Your task to perform on an android device: stop showing notifications on the lock screen Image 0: 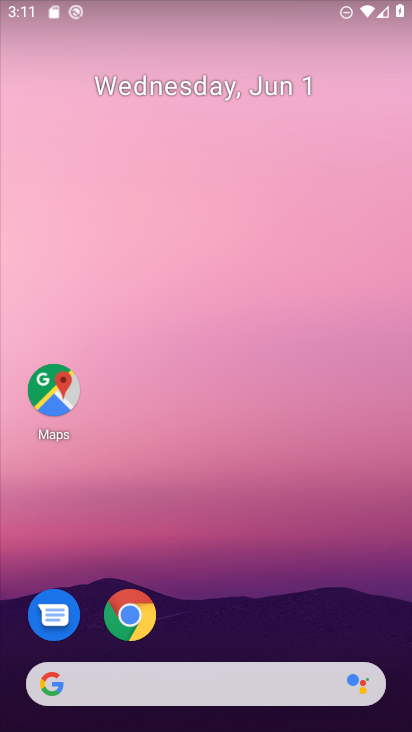
Step 0: press home button
Your task to perform on an android device: stop showing notifications on the lock screen Image 1: 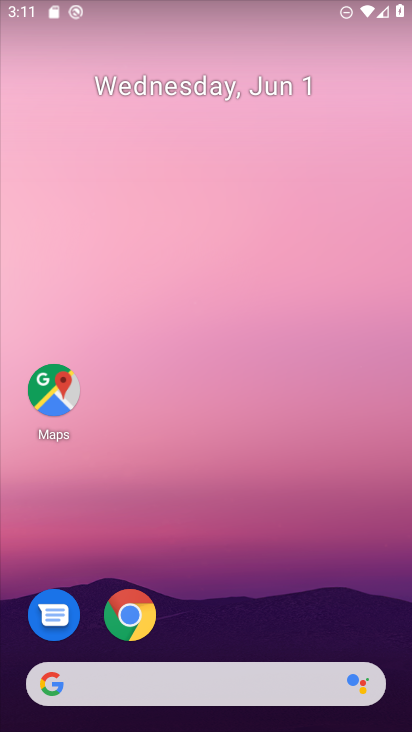
Step 1: drag from (206, 643) to (220, 88)
Your task to perform on an android device: stop showing notifications on the lock screen Image 2: 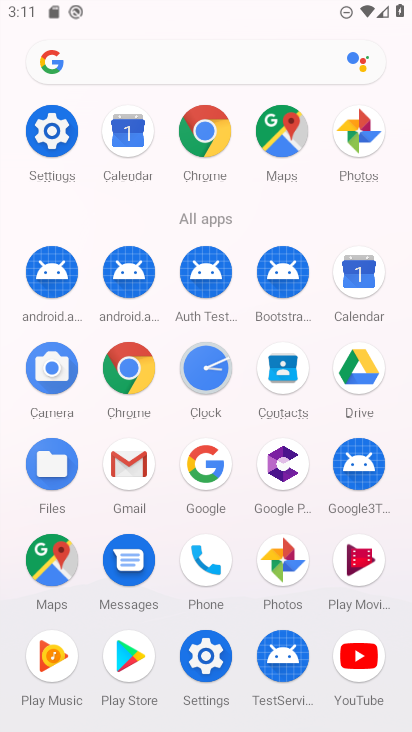
Step 2: click (48, 121)
Your task to perform on an android device: stop showing notifications on the lock screen Image 3: 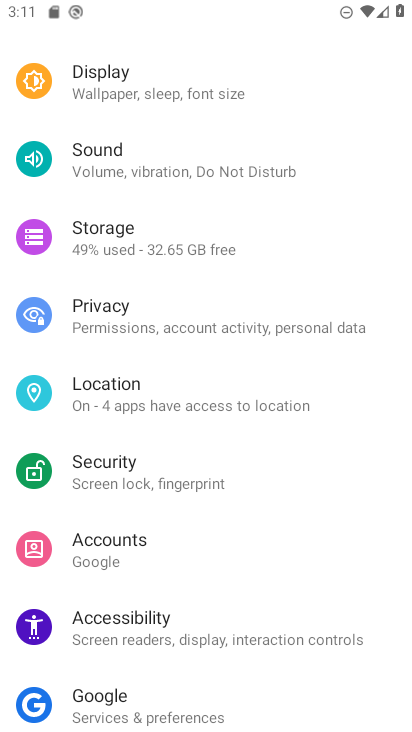
Step 3: drag from (172, 134) to (190, 549)
Your task to perform on an android device: stop showing notifications on the lock screen Image 4: 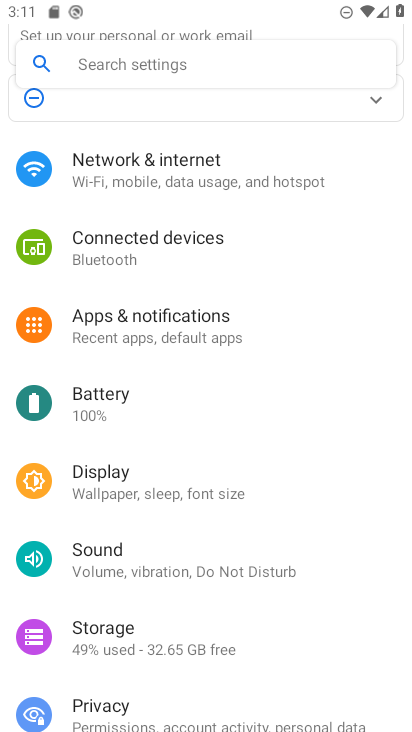
Step 4: click (246, 315)
Your task to perform on an android device: stop showing notifications on the lock screen Image 5: 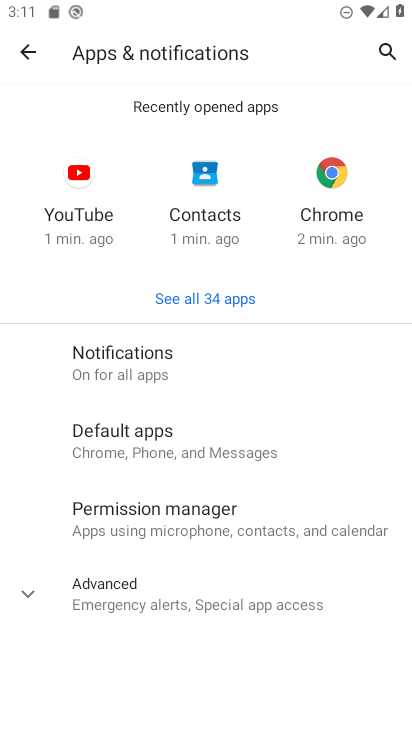
Step 5: click (181, 364)
Your task to perform on an android device: stop showing notifications on the lock screen Image 6: 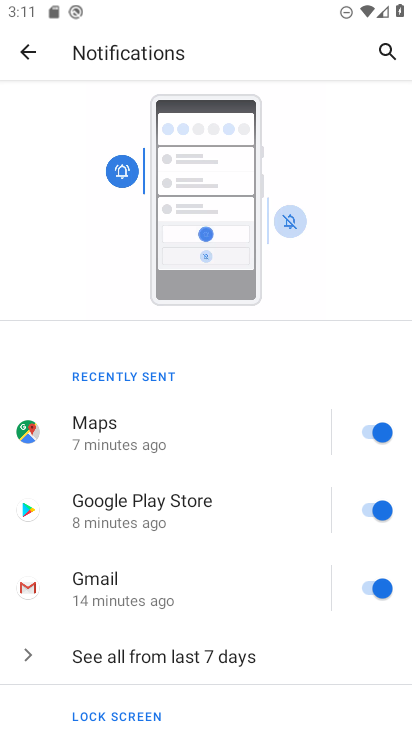
Step 6: drag from (246, 626) to (279, 201)
Your task to perform on an android device: stop showing notifications on the lock screen Image 7: 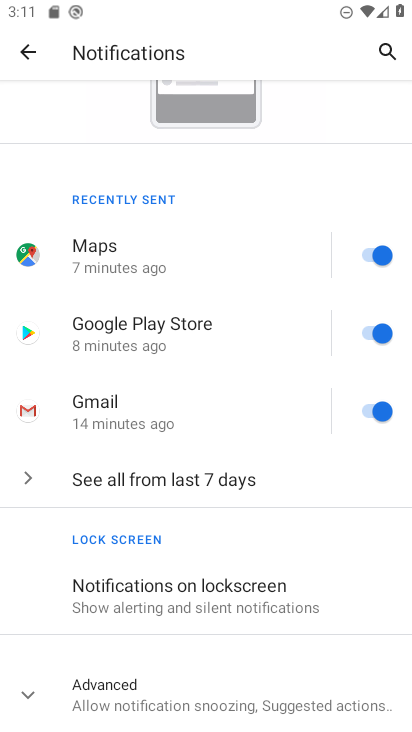
Step 7: click (31, 684)
Your task to perform on an android device: stop showing notifications on the lock screen Image 8: 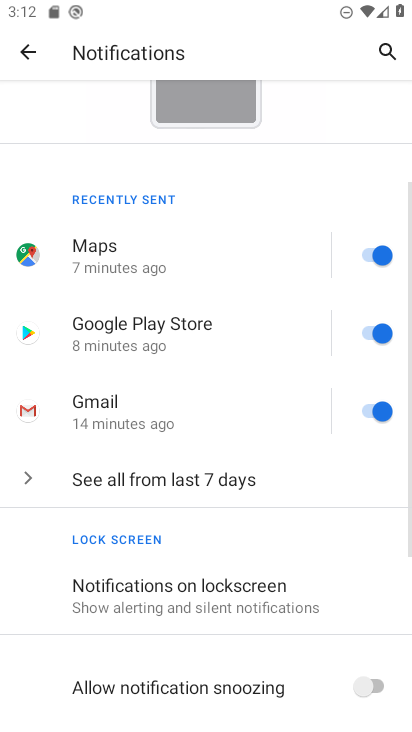
Step 8: click (202, 590)
Your task to perform on an android device: stop showing notifications on the lock screen Image 9: 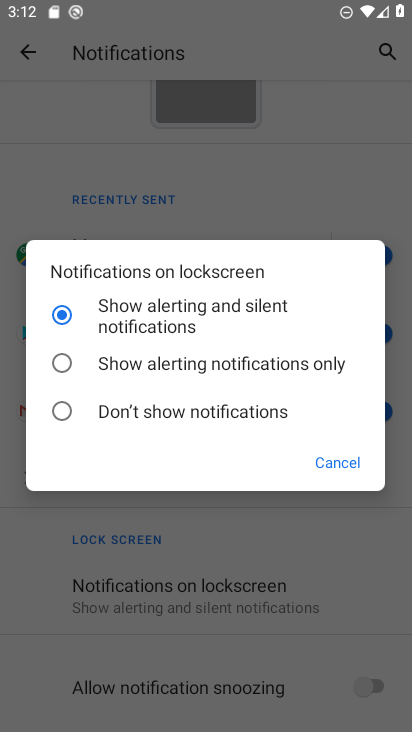
Step 9: click (59, 407)
Your task to perform on an android device: stop showing notifications on the lock screen Image 10: 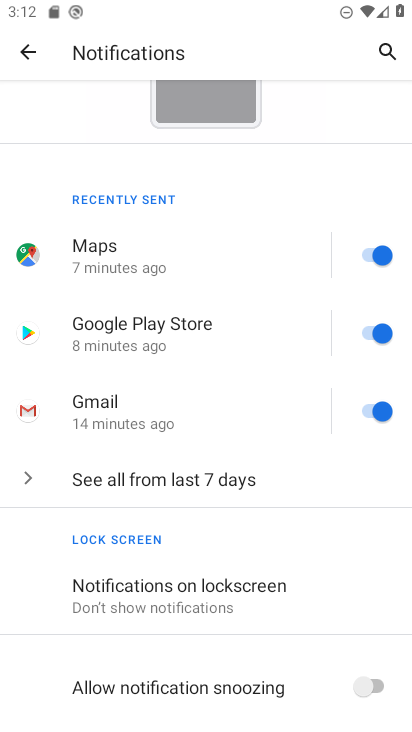
Step 10: task complete